Your task to perform on an android device: Open Google Maps and go to "Timeline" Image 0: 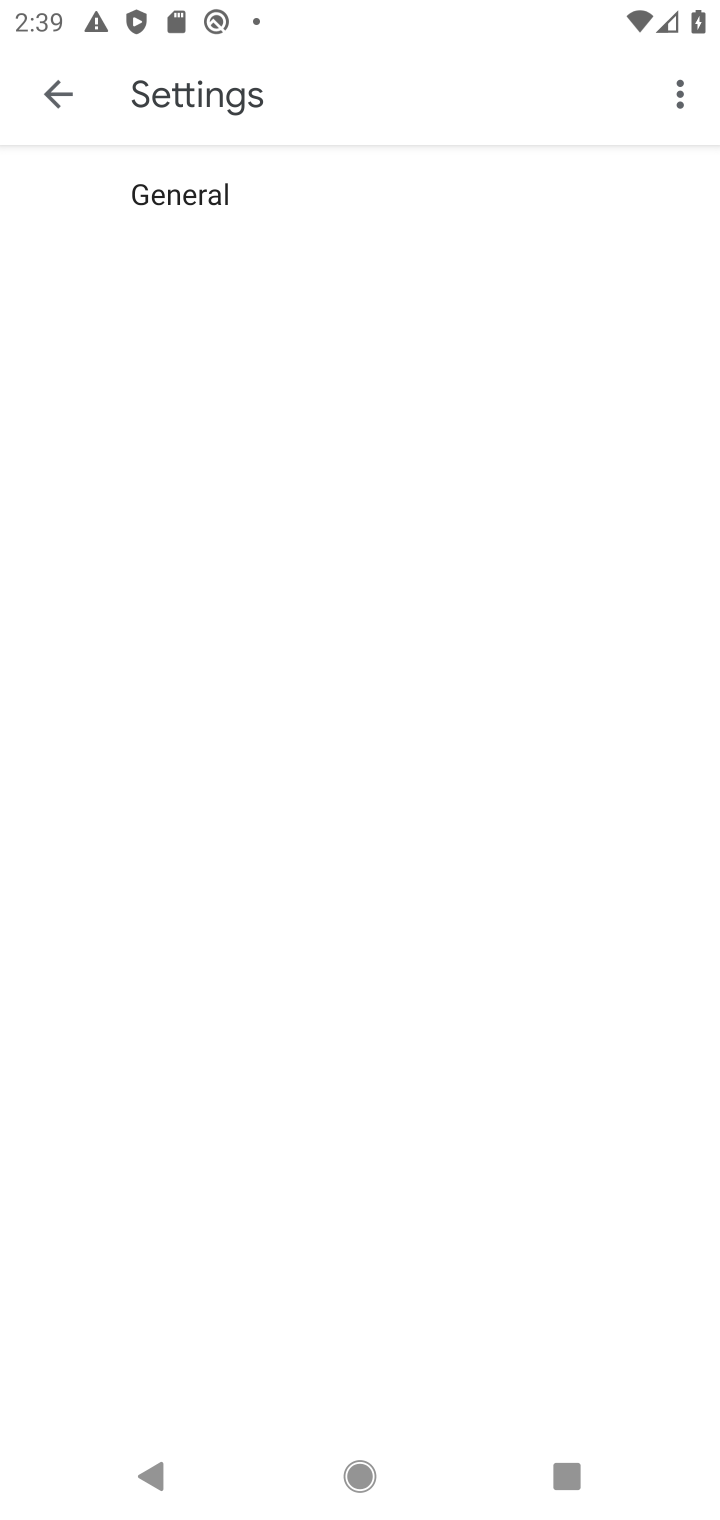
Step 0: press home button
Your task to perform on an android device: Open Google Maps and go to "Timeline" Image 1: 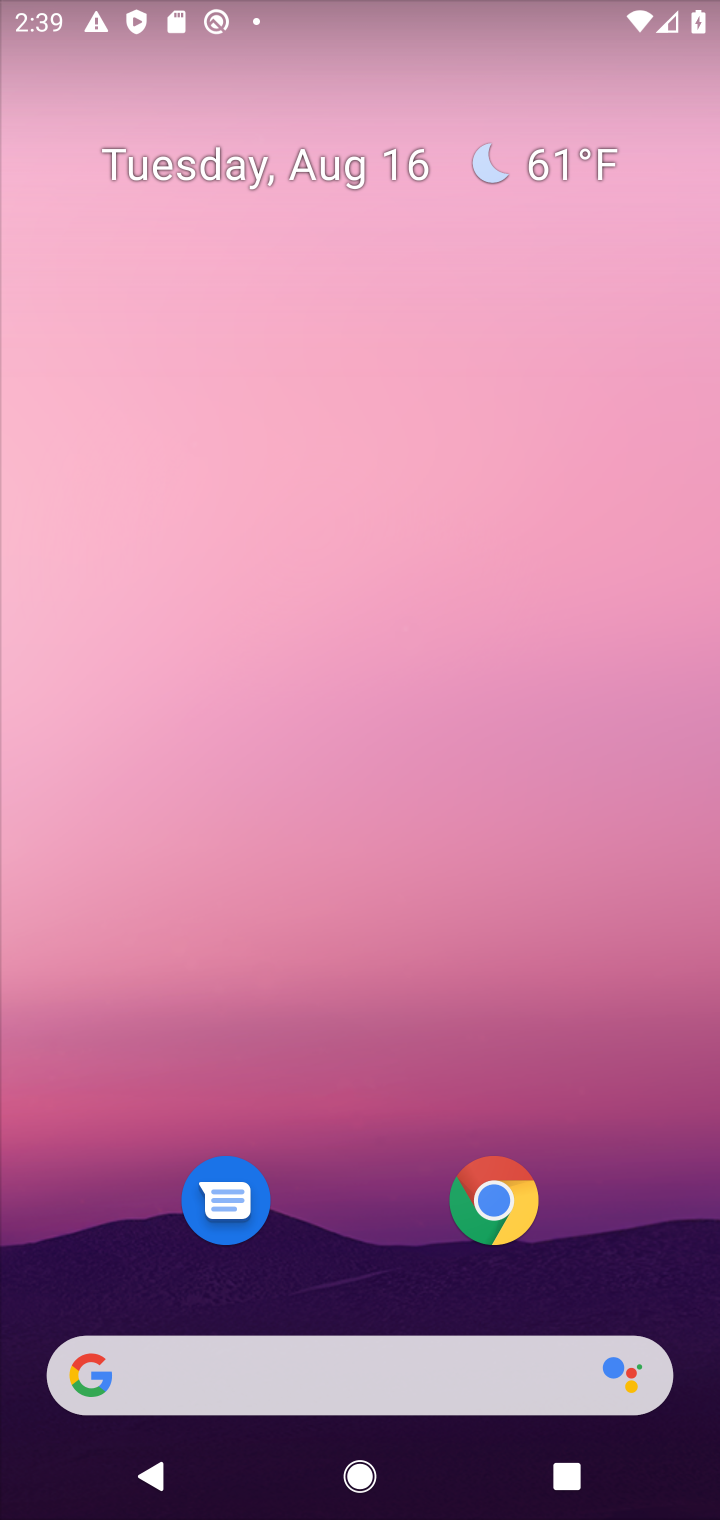
Step 1: task complete